Your task to perform on an android device: toggle javascript in the chrome app Image 0: 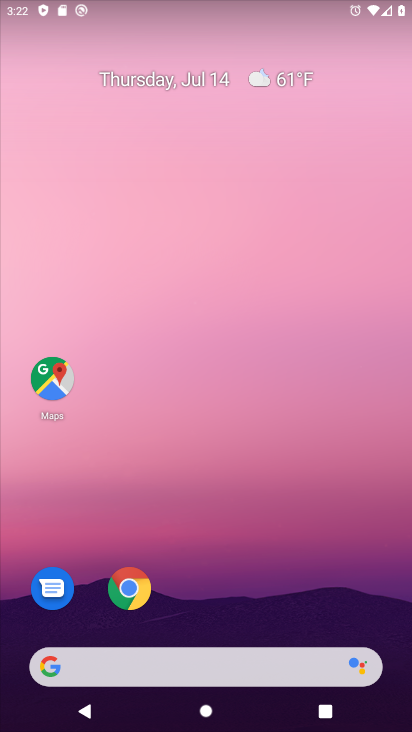
Step 0: press home button
Your task to perform on an android device: toggle javascript in the chrome app Image 1: 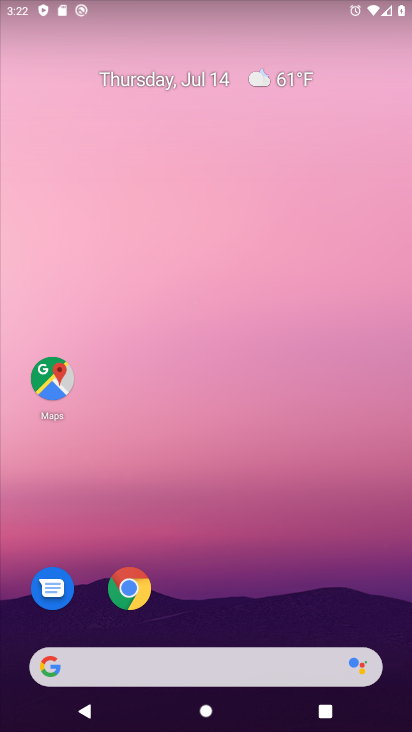
Step 1: drag from (227, 623) to (235, 173)
Your task to perform on an android device: toggle javascript in the chrome app Image 2: 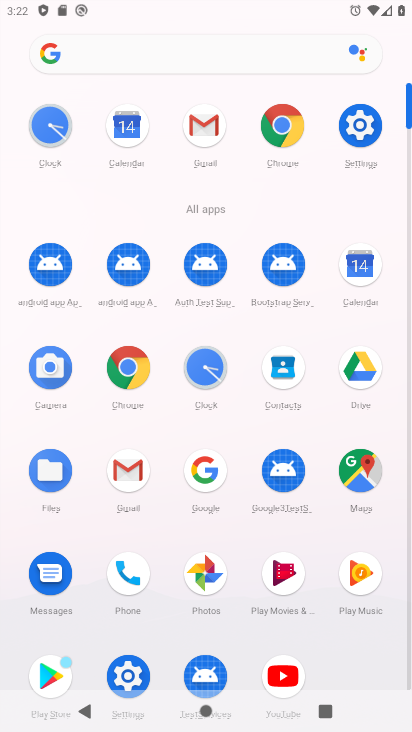
Step 2: click (295, 122)
Your task to perform on an android device: toggle javascript in the chrome app Image 3: 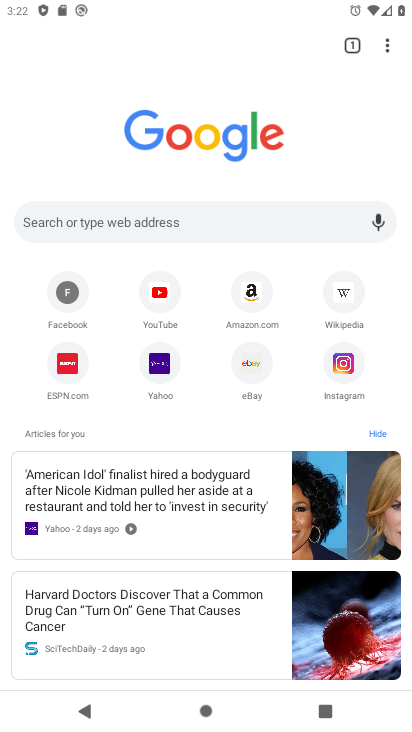
Step 3: drag from (389, 46) to (220, 382)
Your task to perform on an android device: toggle javascript in the chrome app Image 4: 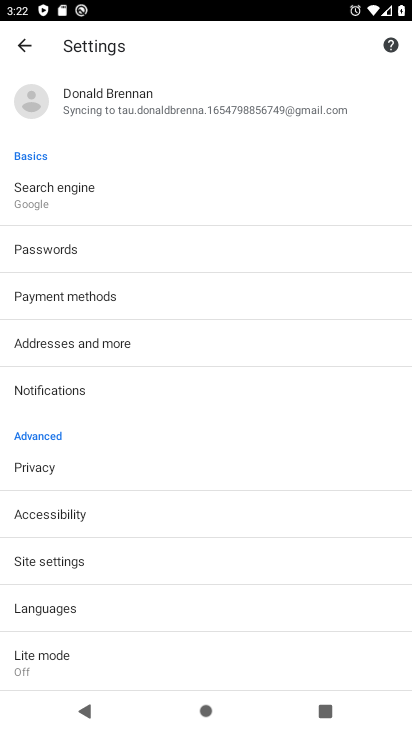
Step 4: click (42, 562)
Your task to perform on an android device: toggle javascript in the chrome app Image 5: 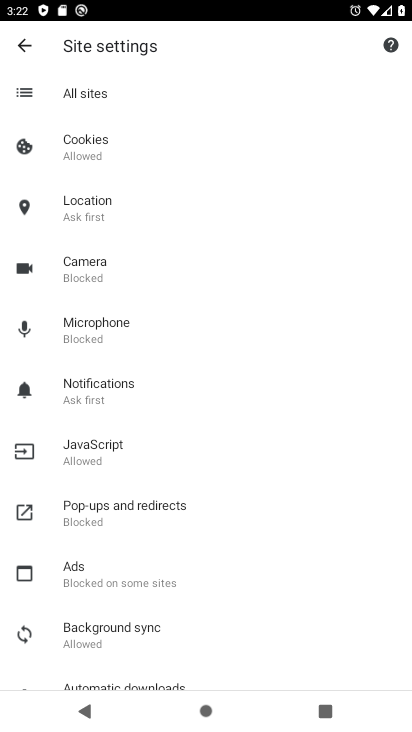
Step 5: click (96, 454)
Your task to perform on an android device: toggle javascript in the chrome app Image 6: 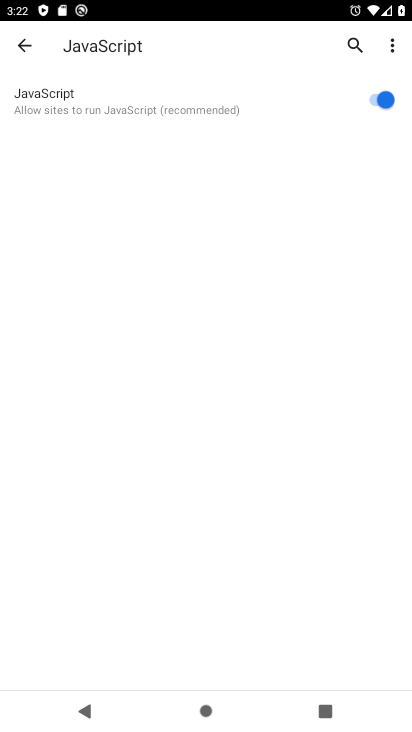
Step 6: click (374, 97)
Your task to perform on an android device: toggle javascript in the chrome app Image 7: 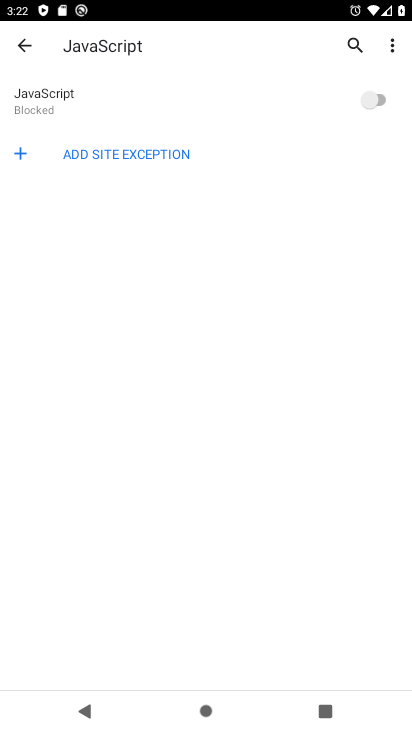
Step 7: task complete